Your task to perform on an android device: change the clock style Image 0: 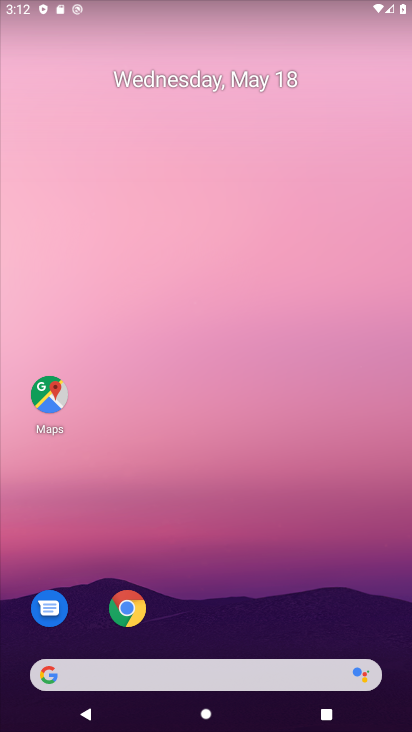
Step 0: drag from (204, 624) to (213, 292)
Your task to perform on an android device: change the clock style Image 1: 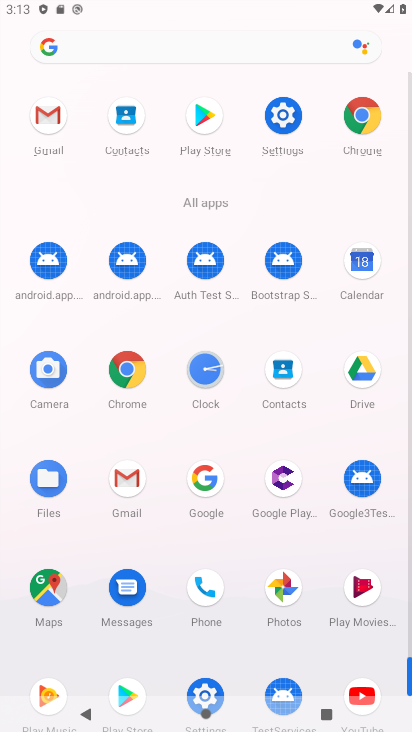
Step 1: click (202, 371)
Your task to perform on an android device: change the clock style Image 2: 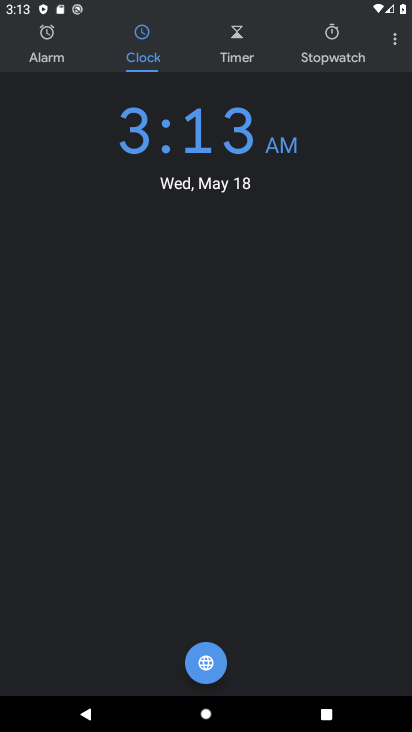
Step 2: click (397, 34)
Your task to perform on an android device: change the clock style Image 3: 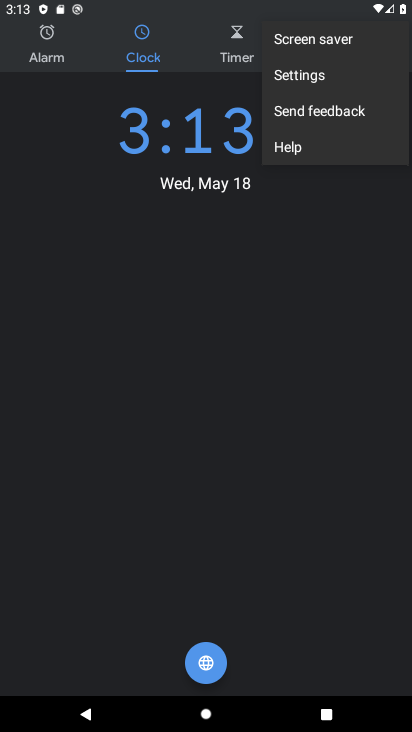
Step 3: click (270, 76)
Your task to perform on an android device: change the clock style Image 4: 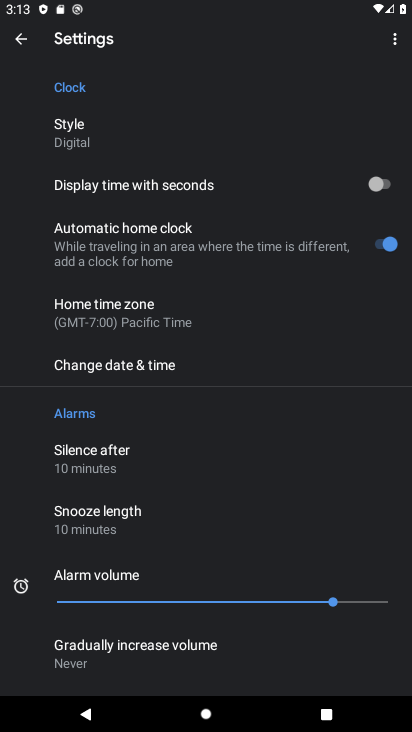
Step 4: click (107, 140)
Your task to perform on an android device: change the clock style Image 5: 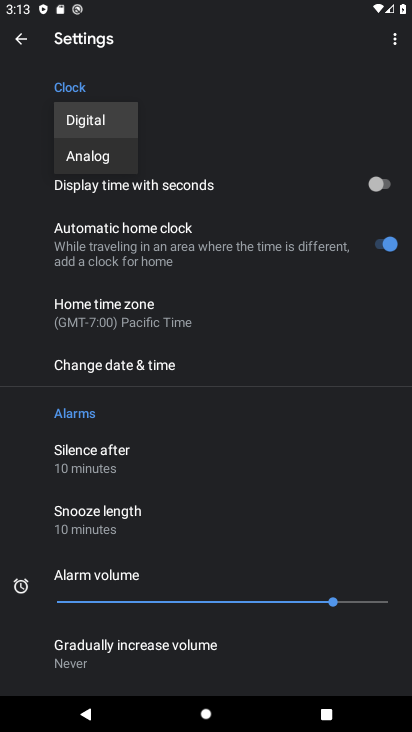
Step 5: click (110, 148)
Your task to perform on an android device: change the clock style Image 6: 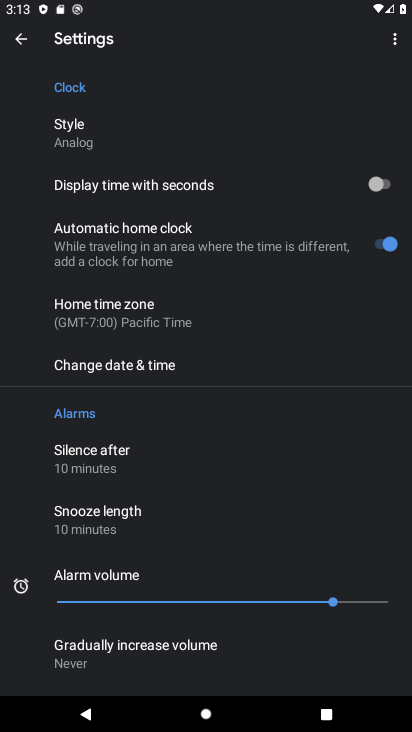
Step 6: task complete